Your task to perform on an android device: Show me the alarms in the clock app Image 0: 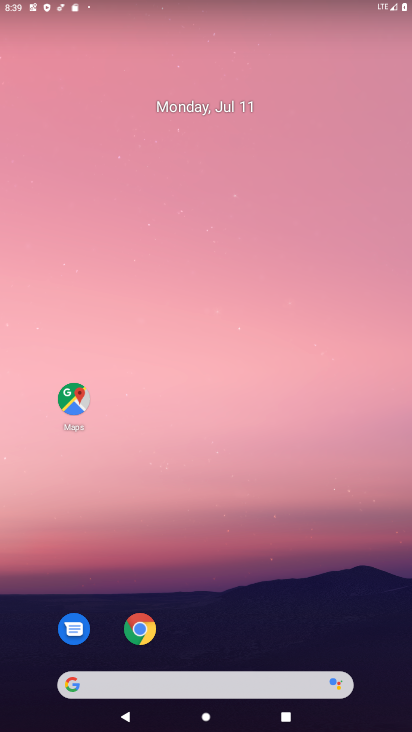
Step 0: drag from (204, 626) to (304, 30)
Your task to perform on an android device: Show me the alarms in the clock app Image 1: 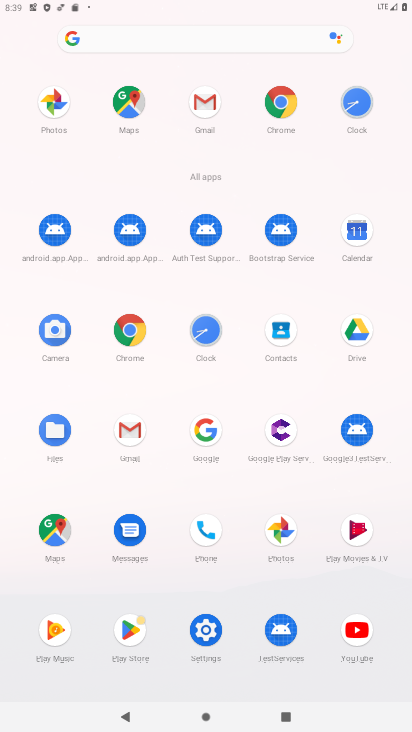
Step 1: click (354, 92)
Your task to perform on an android device: Show me the alarms in the clock app Image 2: 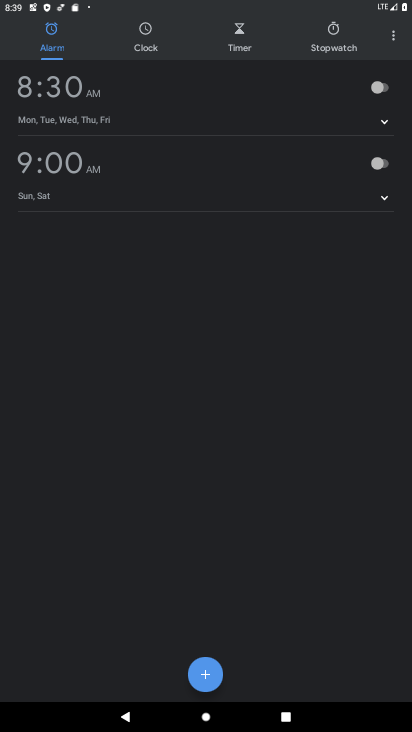
Step 2: task complete